Your task to perform on an android device: Play the last video I watched on Youtube Image 0: 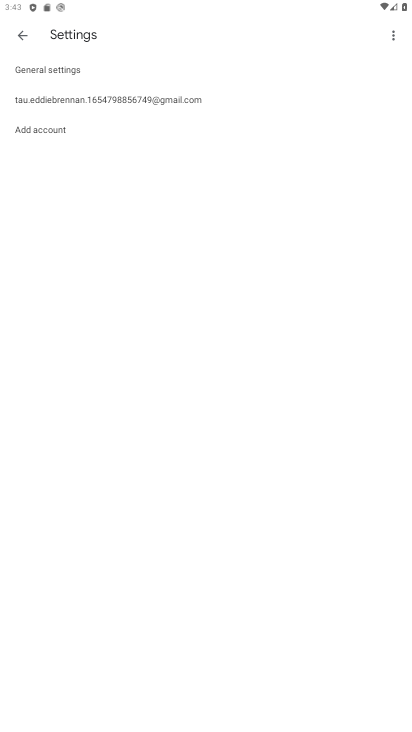
Step 0: press home button
Your task to perform on an android device: Play the last video I watched on Youtube Image 1: 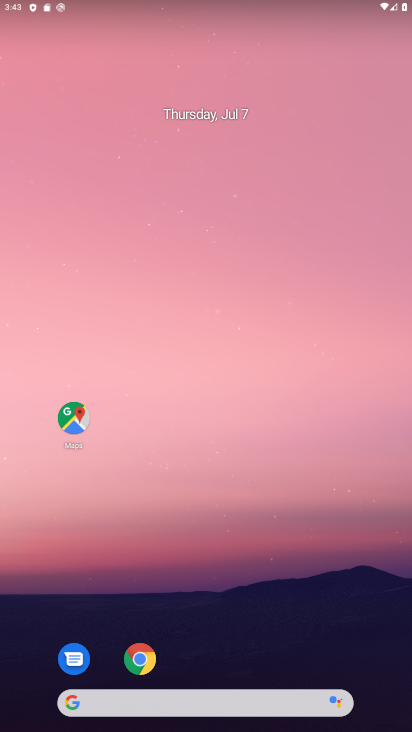
Step 1: drag from (183, 576) to (274, 5)
Your task to perform on an android device: Play the last video I watched on Youtube Image 2: 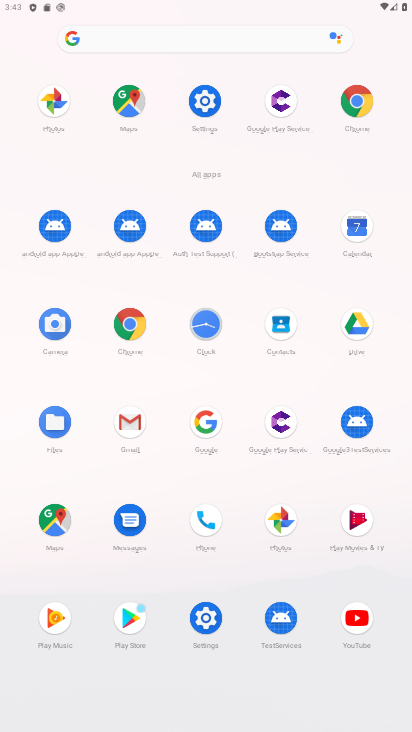
Step 2: click (364, 626)
Your task to perform on an android device: Play the last video I watched on Youtube Image 3: 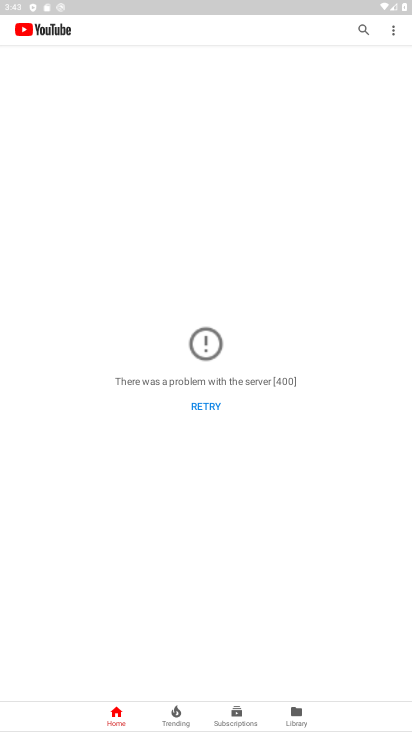
Step 3: click (197, 401)
Your task to perform on an android device: Play the last video I watched on Youtube Image 4: 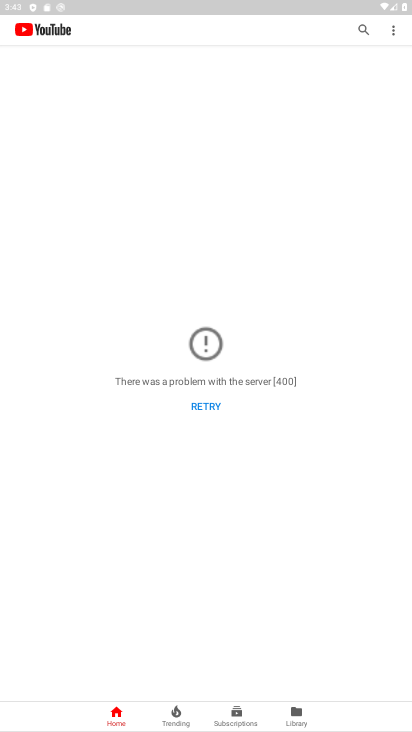
Step 4: task complete